Your task to perform on an android device: What's the latest video from GameXplain? Image 0: 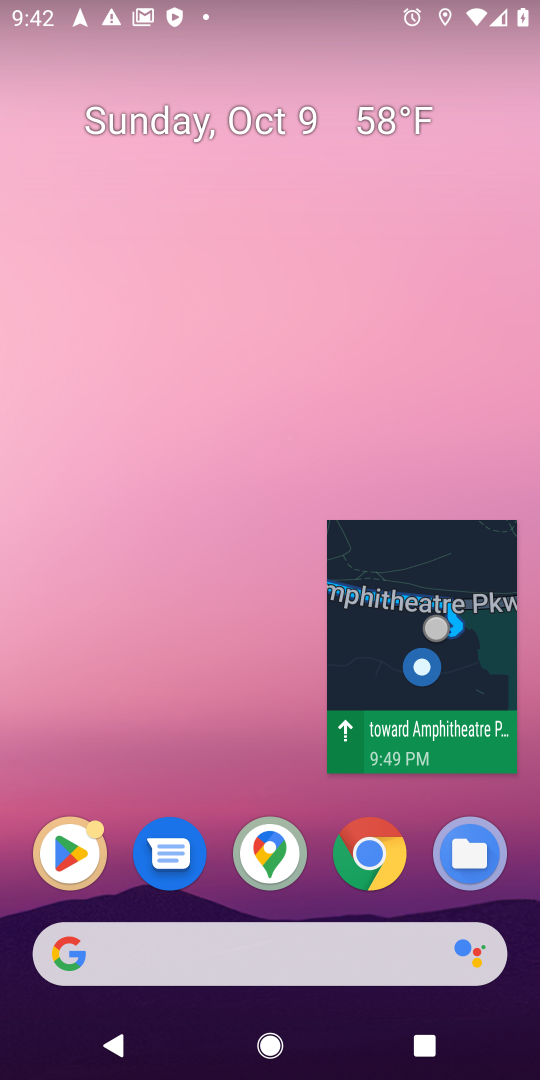
Step 0: drag from (495, 621) to (282, 835)
Your task to perform on an android device: What's the latest video from GameXplain? Image 1: 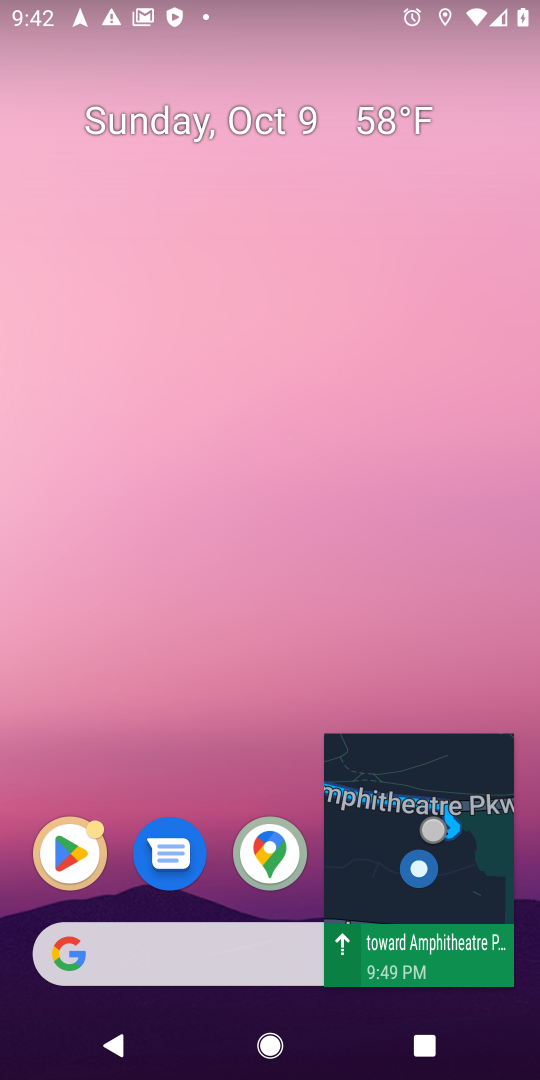
Step 1: drag from (400, 843) to (271, 961)
Your task to perform on an android device: What's the latest video from GameXplain? Image 2: 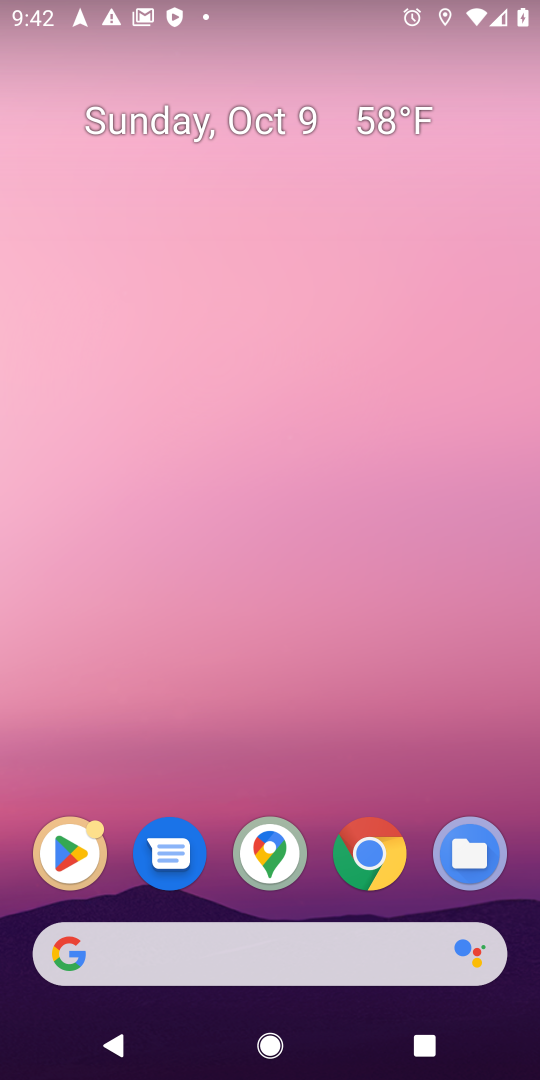
Step 2: drag from (276, 632) to (330, 127)
Your task to perform on an android device: What's the latest video from GameXplain? Image 3: 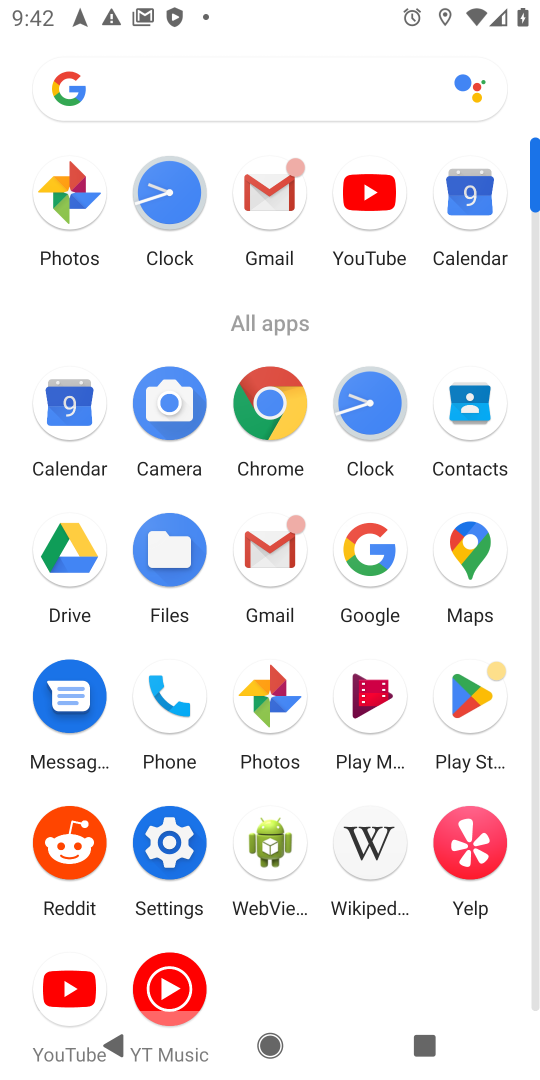
Step 3: click (376, 228)
Your task to perform on an android device: What's the latest video from GameXplain? Image 4: 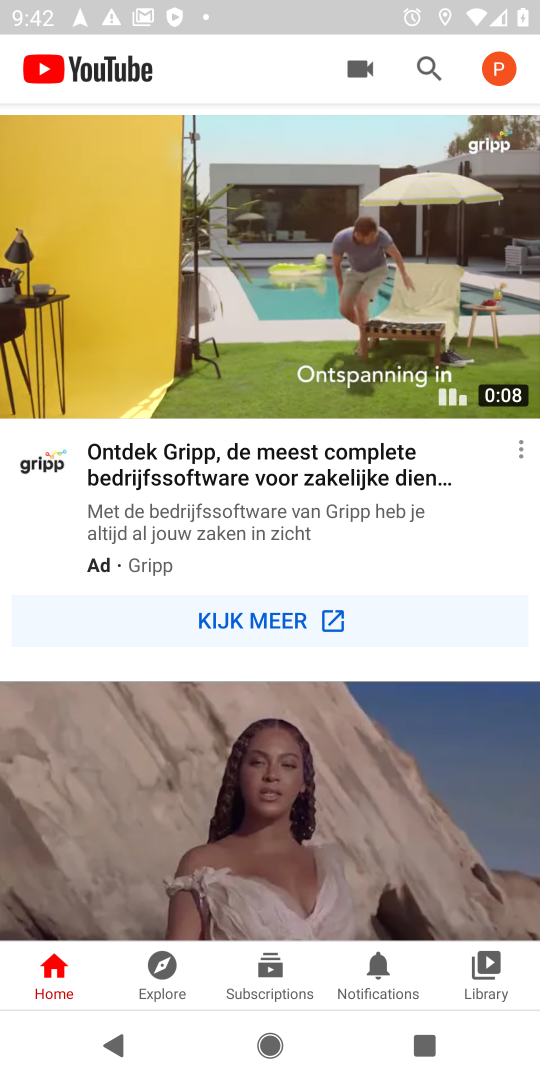
Step 4: click (422, 70)
Your task to perform on an android device: What's the latest video from GameXplain? Image 5: 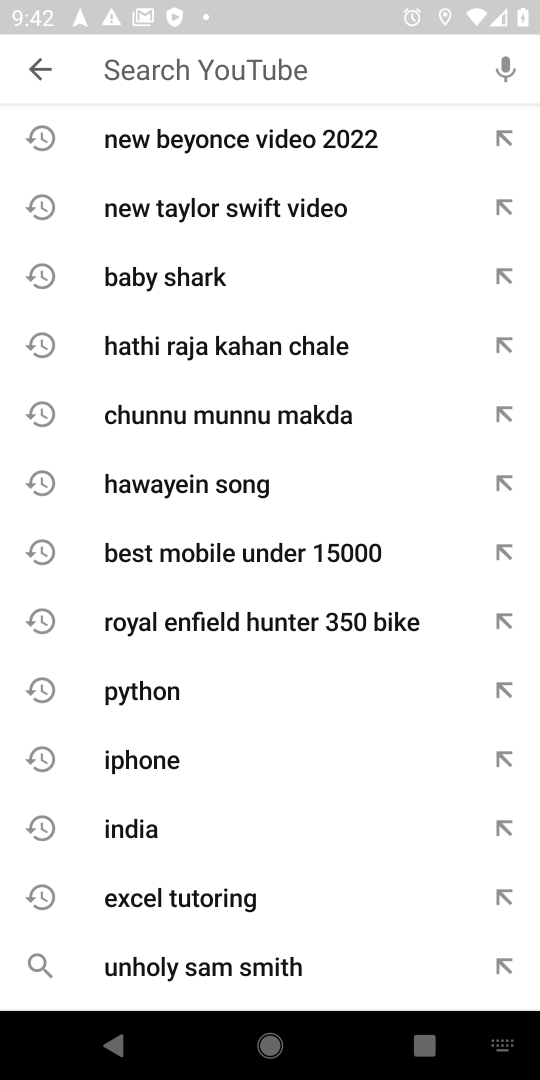
Step 5: type "gamexplain"
Your task to perform on an android device: What's the latest video from GameXplain? Image 6: 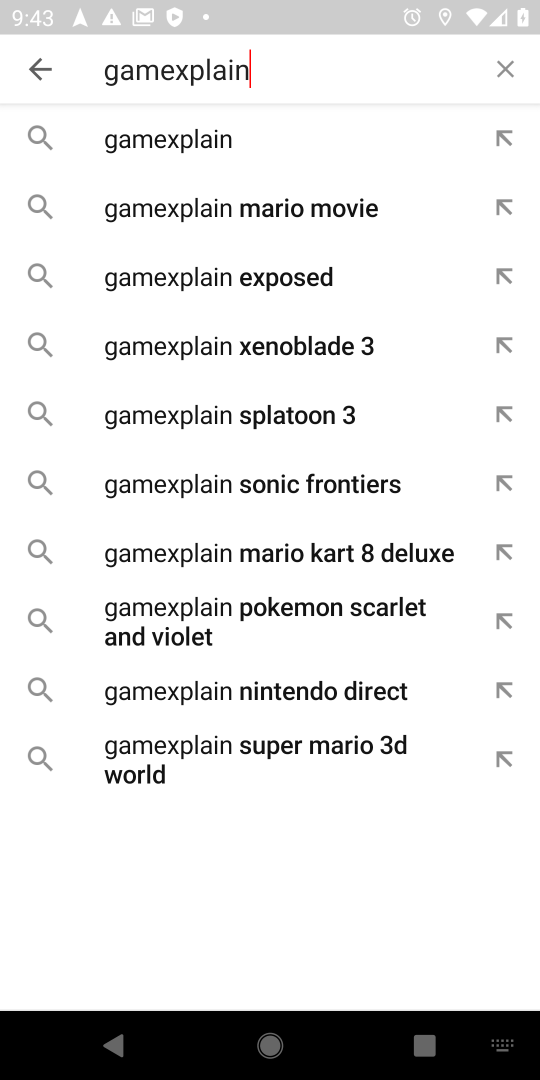
Step 6: click (145, 126)
Your task to perform on an android device: What's the latest video from GameXplain? Image 7: 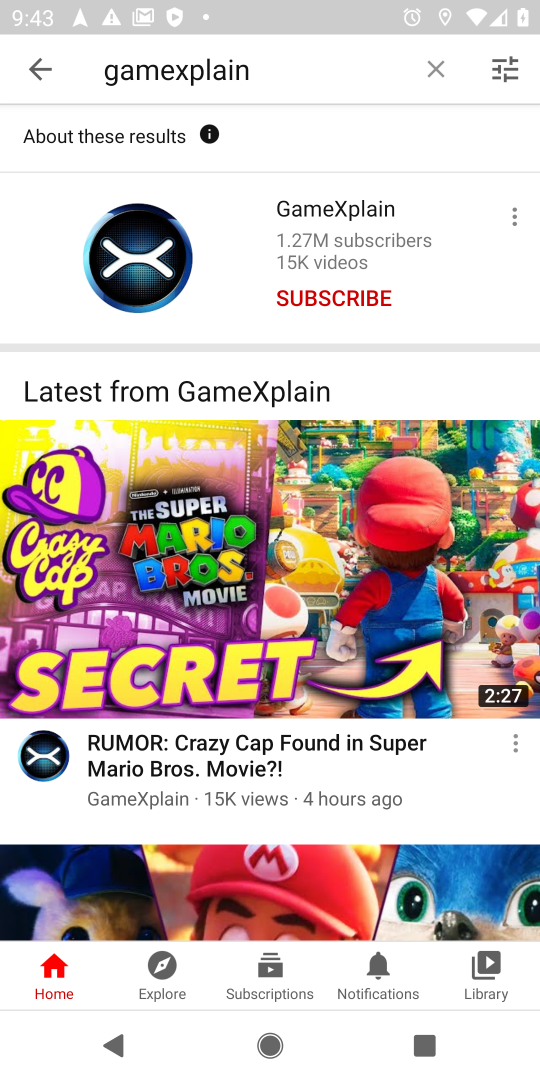
Step 7: click (355, 216)
Your task to perform on an android device: What's the latest video from GameXplain? Image 8: 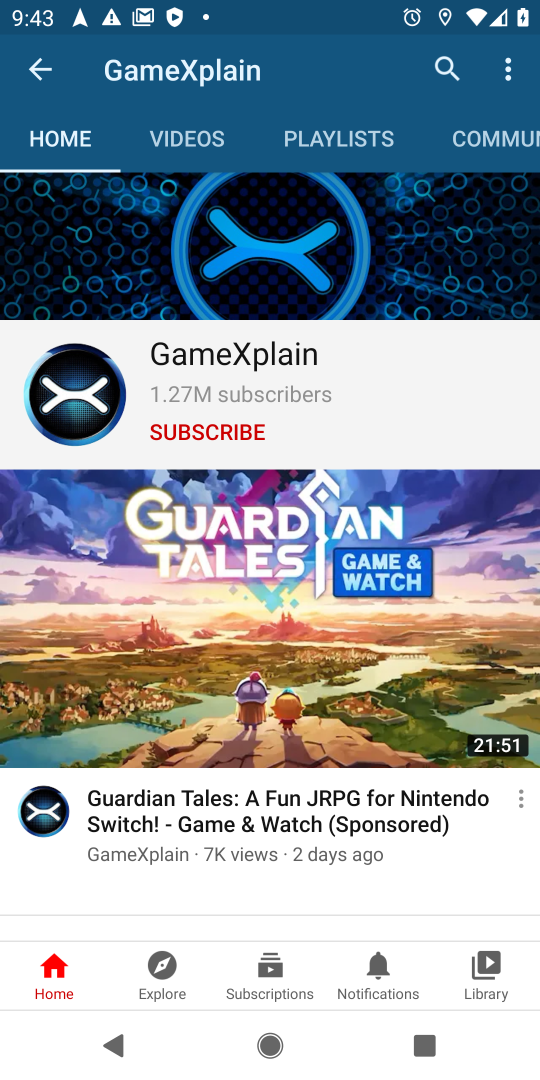
Step 8: click (177, 129)
Your task to perform on an android device: What's the latest video from GameXplain? Image 9: 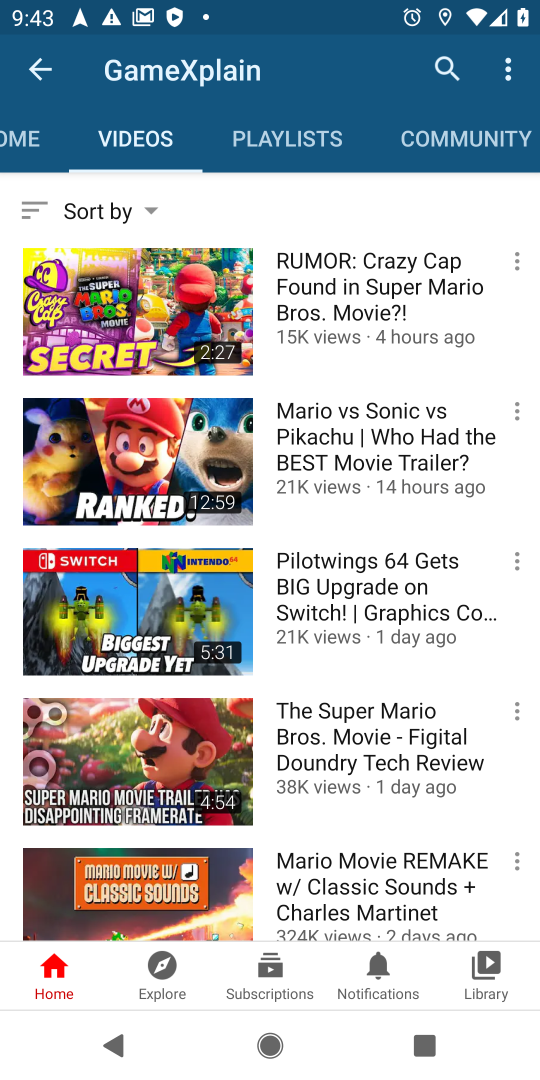
Step 9: click (269, 270)
Your task to perform on an android device: What's the latest video from GameXplain? Image 10: 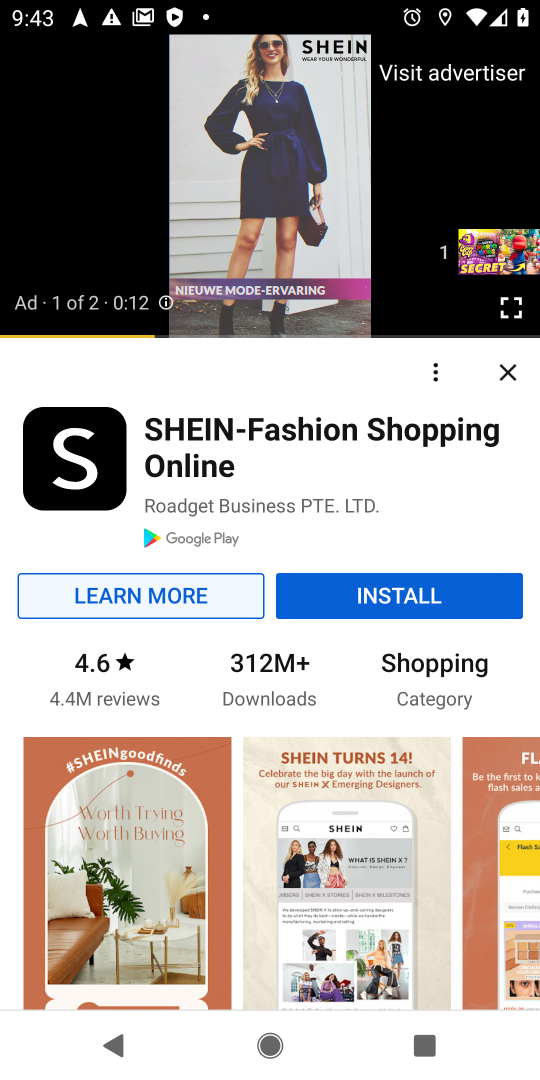
Step 10: task complete